Your task to perform on an android device: Go to accessibility settings Image 0: 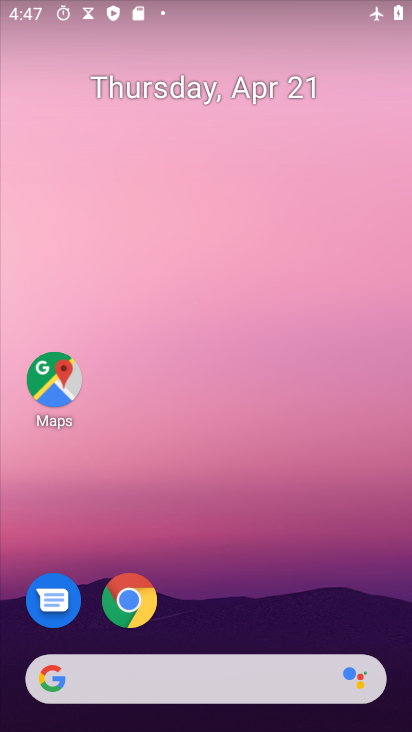
Step 0: drag from (229, 599) to (211, 43)
Your task to perform on an android device: Go to accessibility settings Image 1: 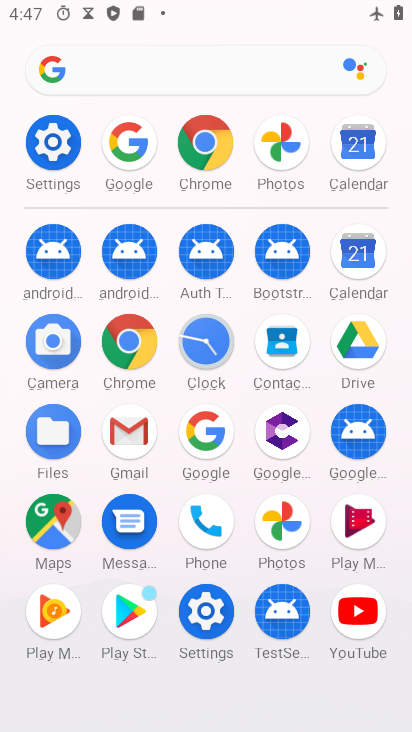
Step 1: click (209, 609)
Your task to perform on an android device: Go to accessibility settings Image 2: 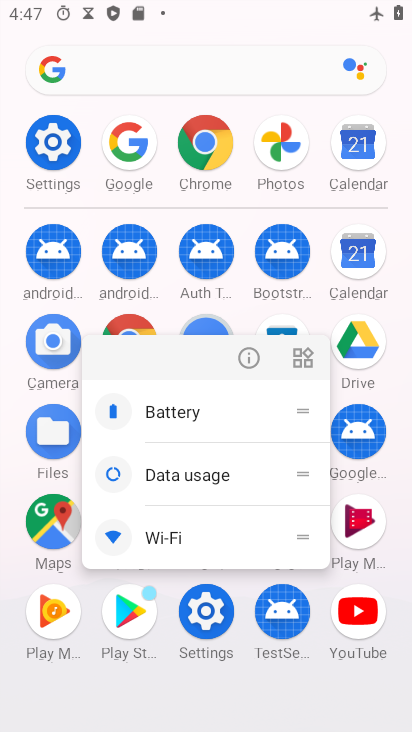
Step 2: click (209, 609)
Your task to perform on an android device: Go to accessibility settings Image 3: 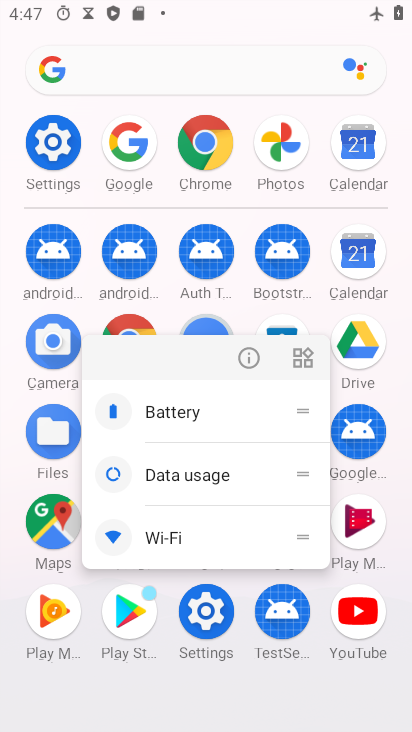
Step 3: click (209, 609)
Your task to perform on an android device: Go to accessibility settings Image 4: 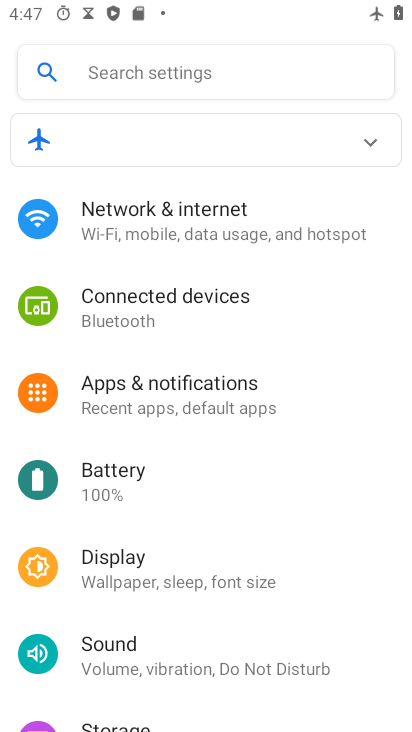
Step 4: drag from (180, 482) to (178, 337)
Your task to perform on an android device: Go to accessibility settings Image 5: 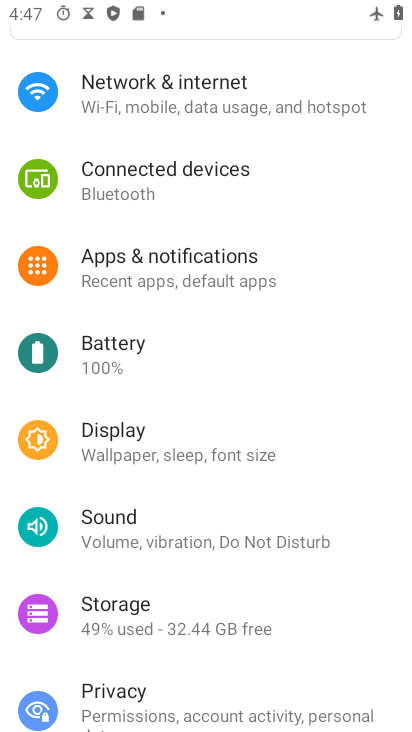
Step 5: drag from (166, 487) to (189, 405)
Your task to perform on an android device: Go to accessibility settings Image 6: 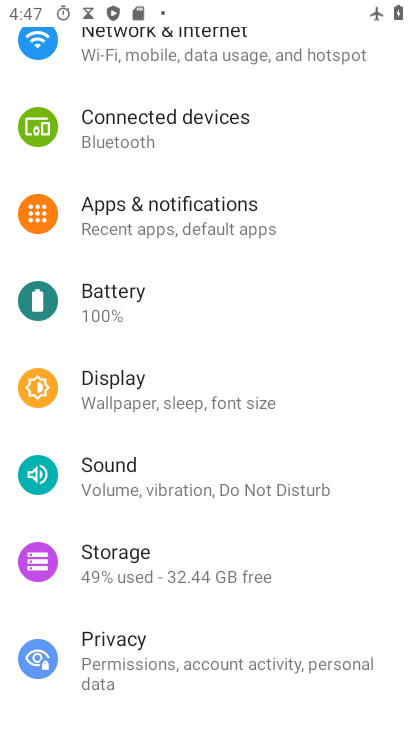
Step 6: drag from (186, 542) to (205, 410)
Your task to perform on an android device: Go to accessibility settings Image 7: 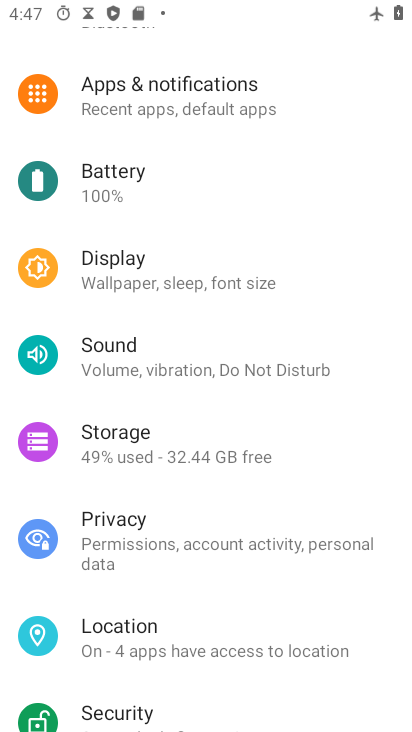
Step 7: drag from (167, 579) to (176, 473)
Your task to perform on an android device: Go to accessibility settings Image 8: 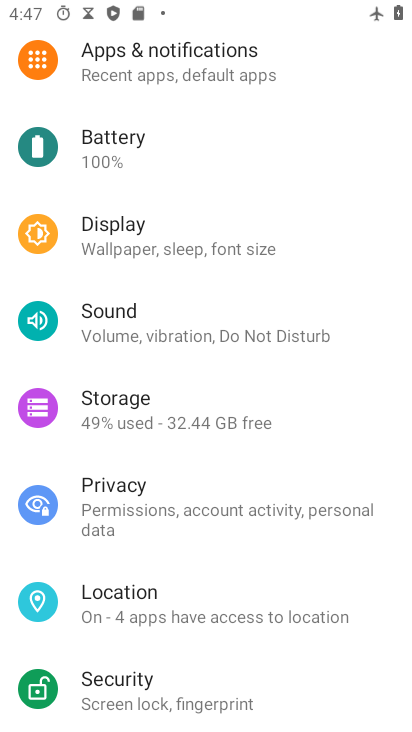
Step 8: drag from (163, 662) to (218, 555)
Your task to perform on an android device: Go to accessibility settings Image 9: 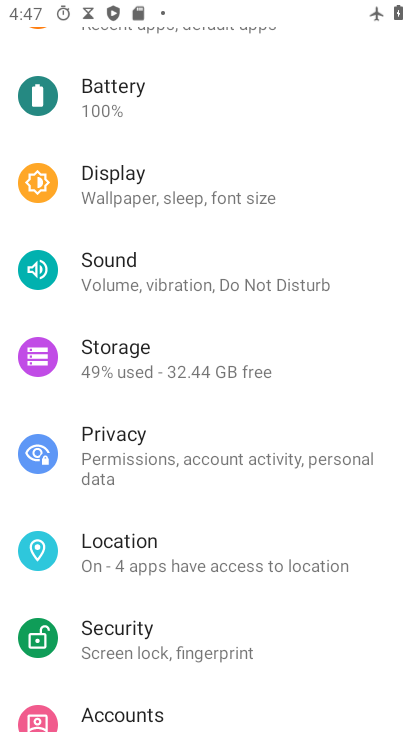
Step 9: drag from (159, 683) to (228, 572)
Your task to perform on an android device: Go to accessibility settings Image 10: 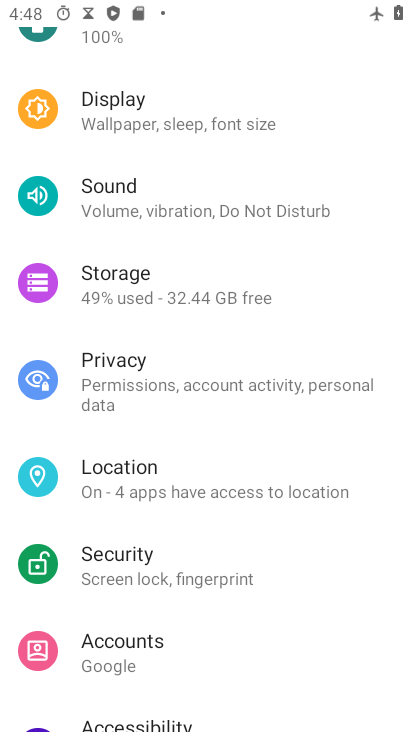
Step 10: drag from (182, 652) to (249, 531)
Your task to perform on an android device: Go to accessibility settings Image 11: 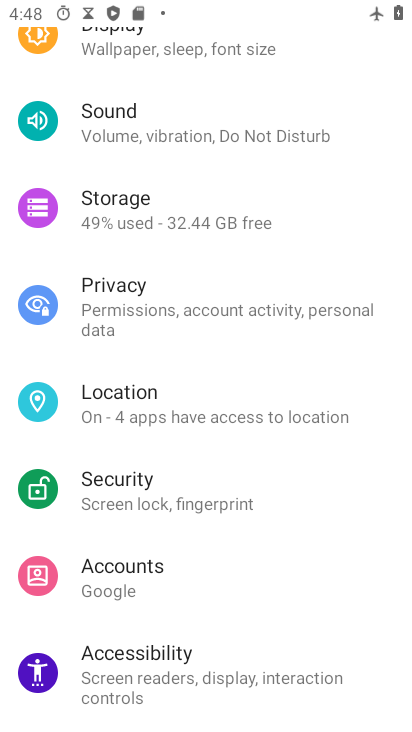
Step 11: click (173, 666)
Your task to perform on an android device: Go to accessibility settings Image 12: 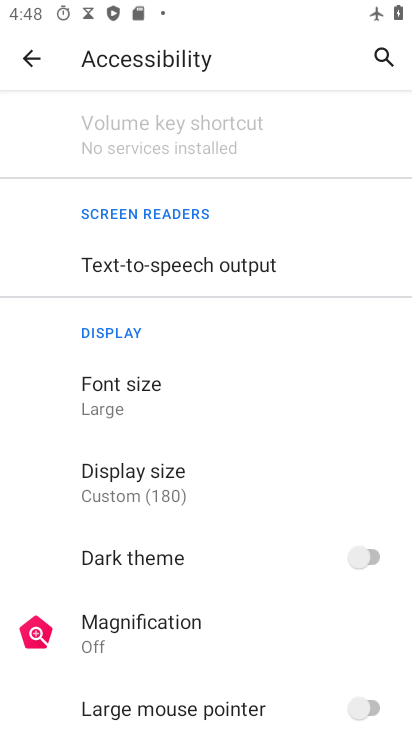
Step 12: task complete